Your task to perform on an android device: see sites visited before in the chrome app Image 0: 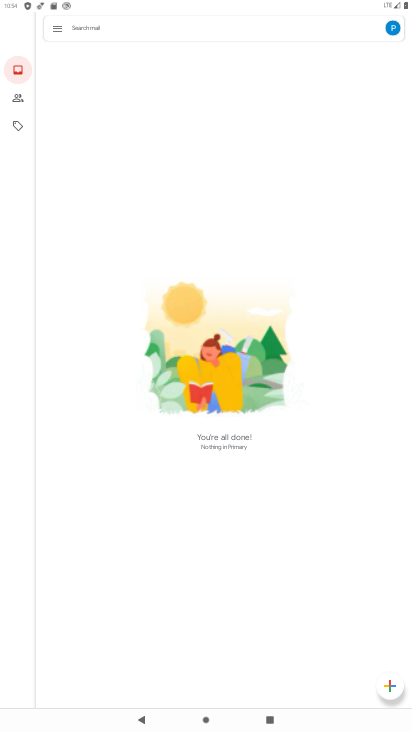
Step 0: press home button
Your task to perform on an android device: see sites visited before in the chrome app Image 1: 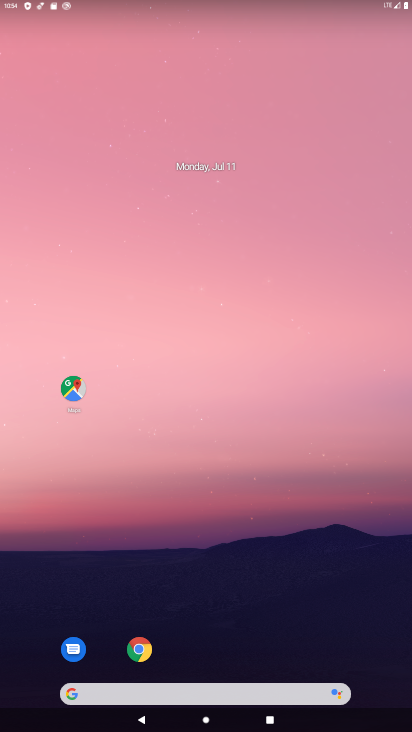
Step 1: drag from (321, 613) to (301, 86)
Your task to perform on an android device: see sites visited before in the chrome app Image 2: 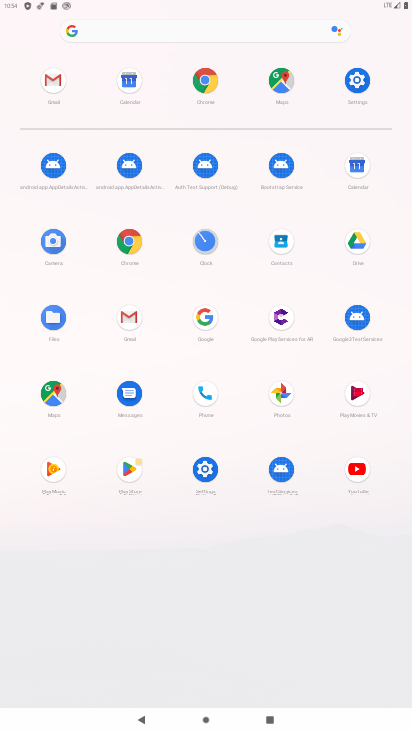
Step 2: click (203, 82)
Your task to perform on an android device: see sites visited before in the chrome app Image 3: 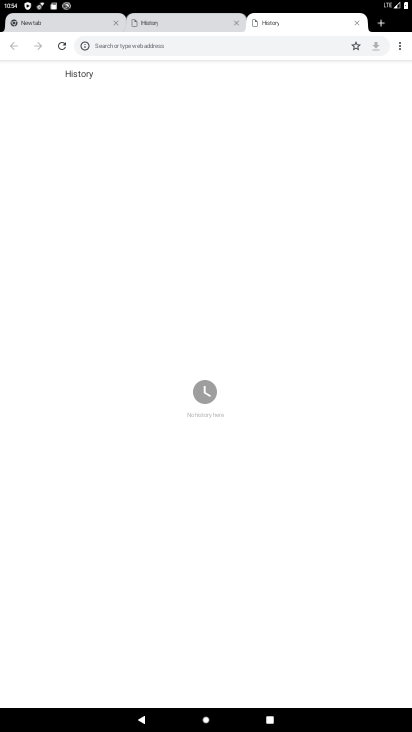
Step 3: task complete